Your task to perform on an android device: open app "Facebook" (install if not already installed) Image 0: 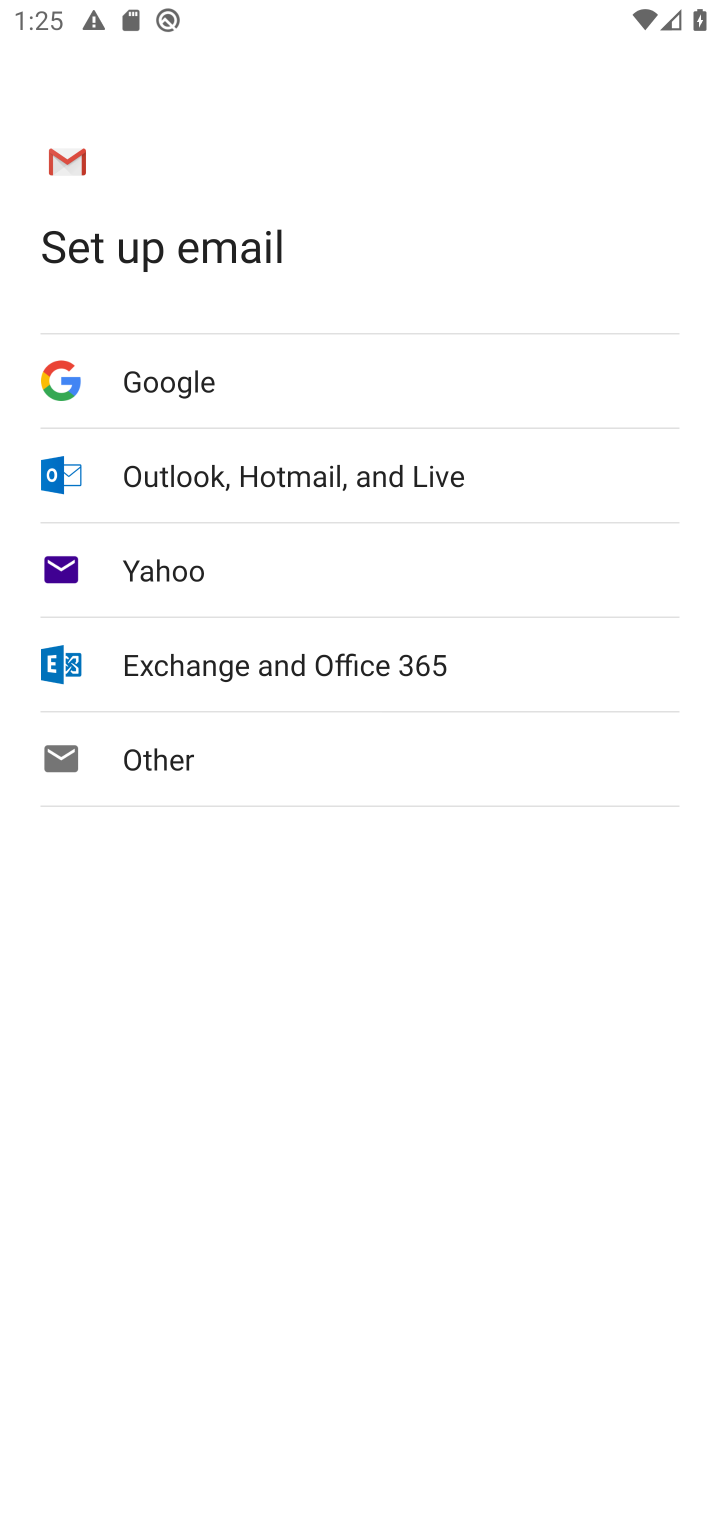
Step 0: press back button
Your task to perform on an android device: open app "Facebook" (install if not already installed) Image 1: 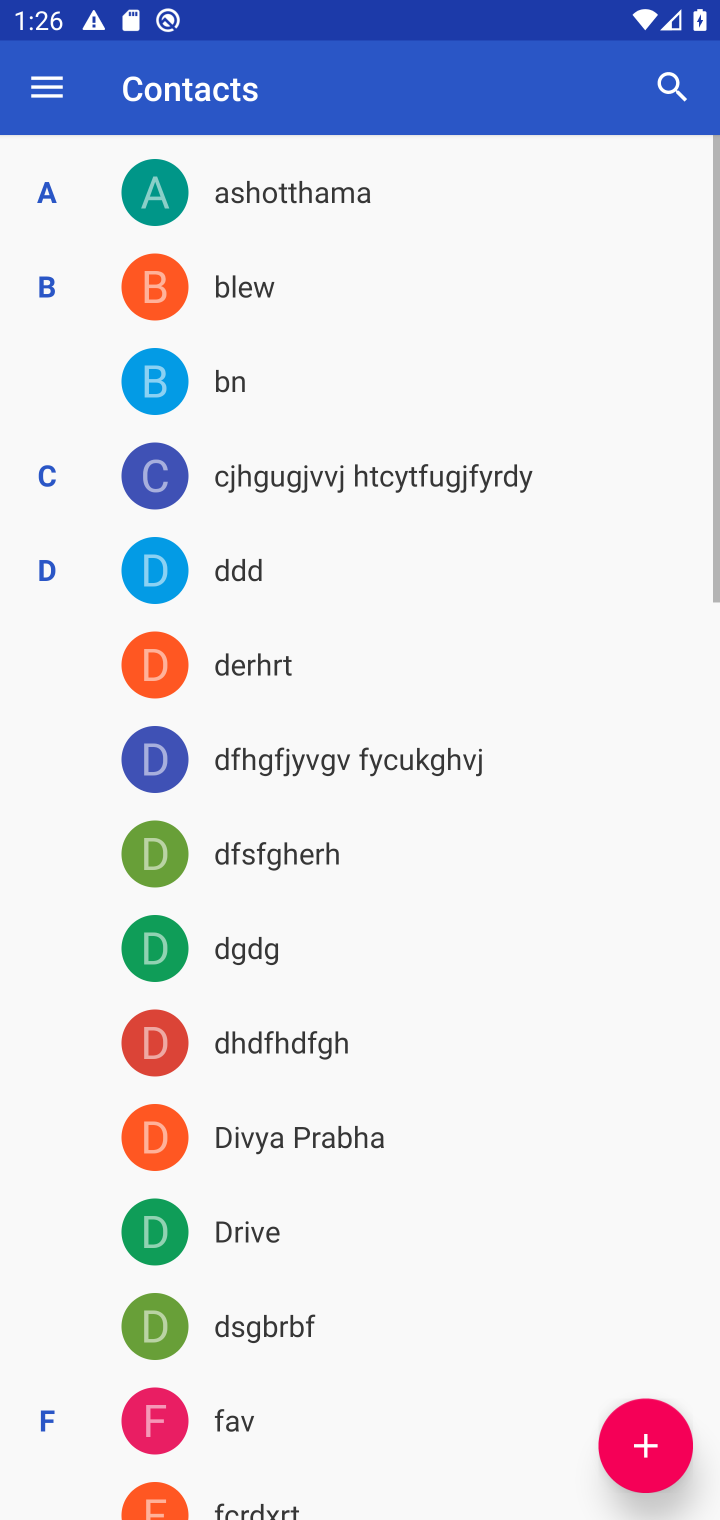
Step 1: press back button
Your task to perform on an android device: open app "Facebook" (install if not already installed) Image 2: 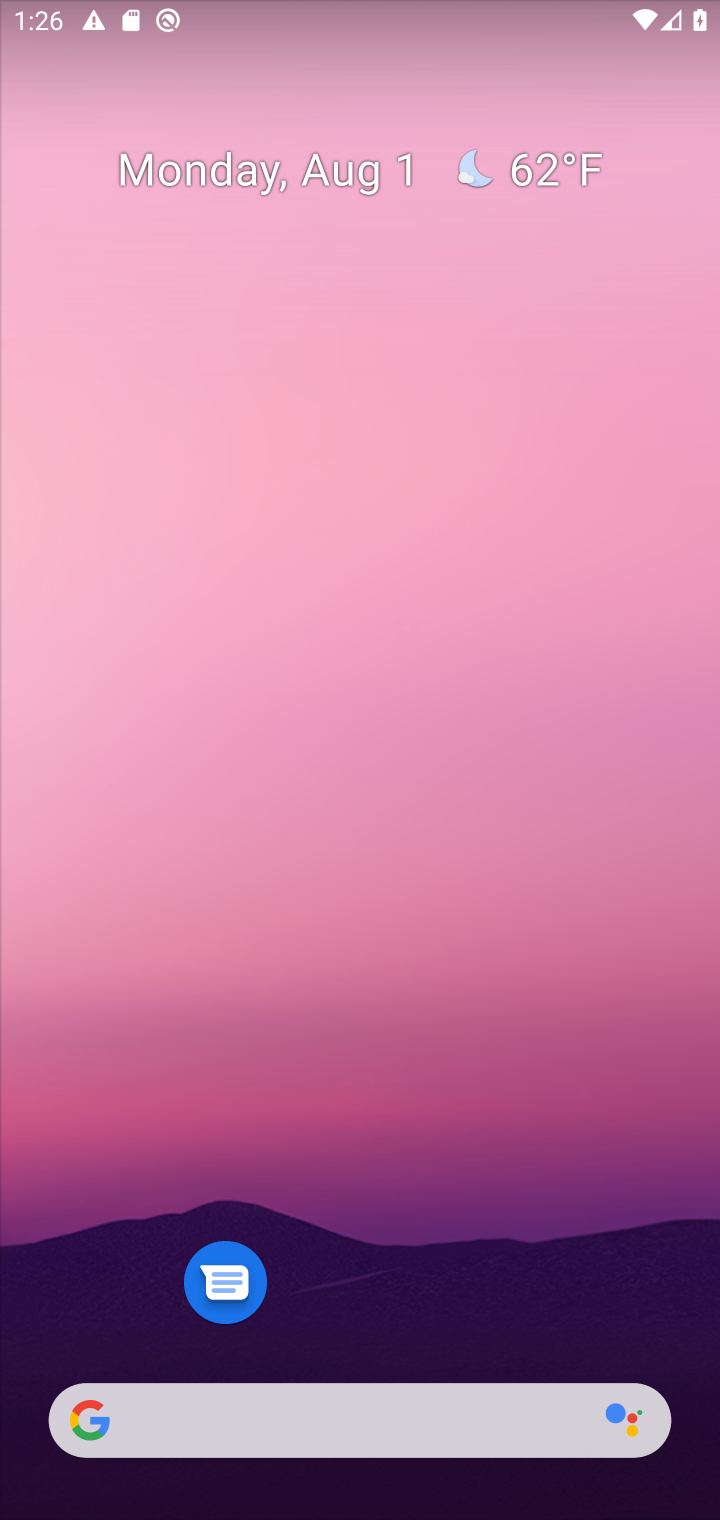
Step 2: drag from (356, 1195) to (31, 1512)
Your task to perform on an android device: open app "Facebook" (install if not already installed) Image 3: 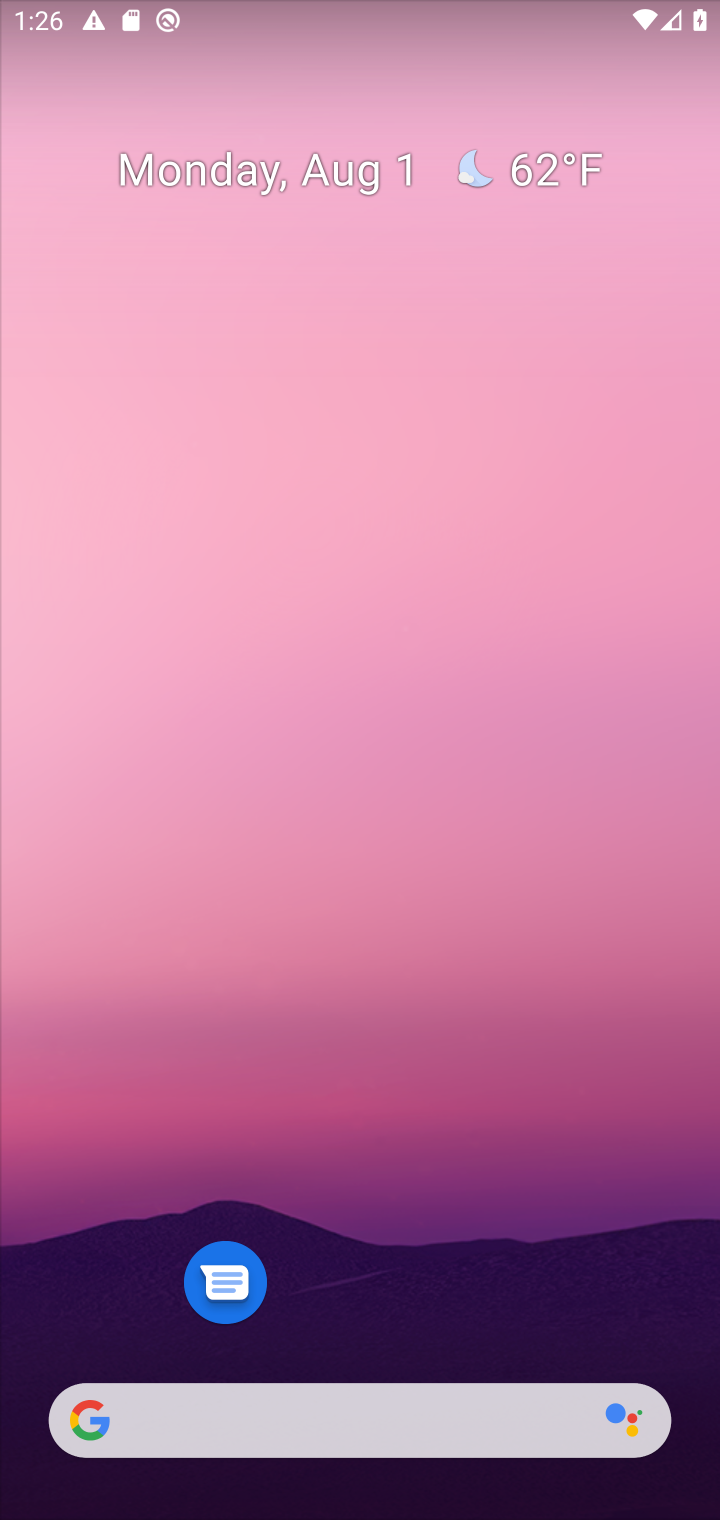
Step 3: drag from (362, 1297) to (409, 313)
Your task to perform on an android device: open app "Facebook" (install if not already installed) Image 4: 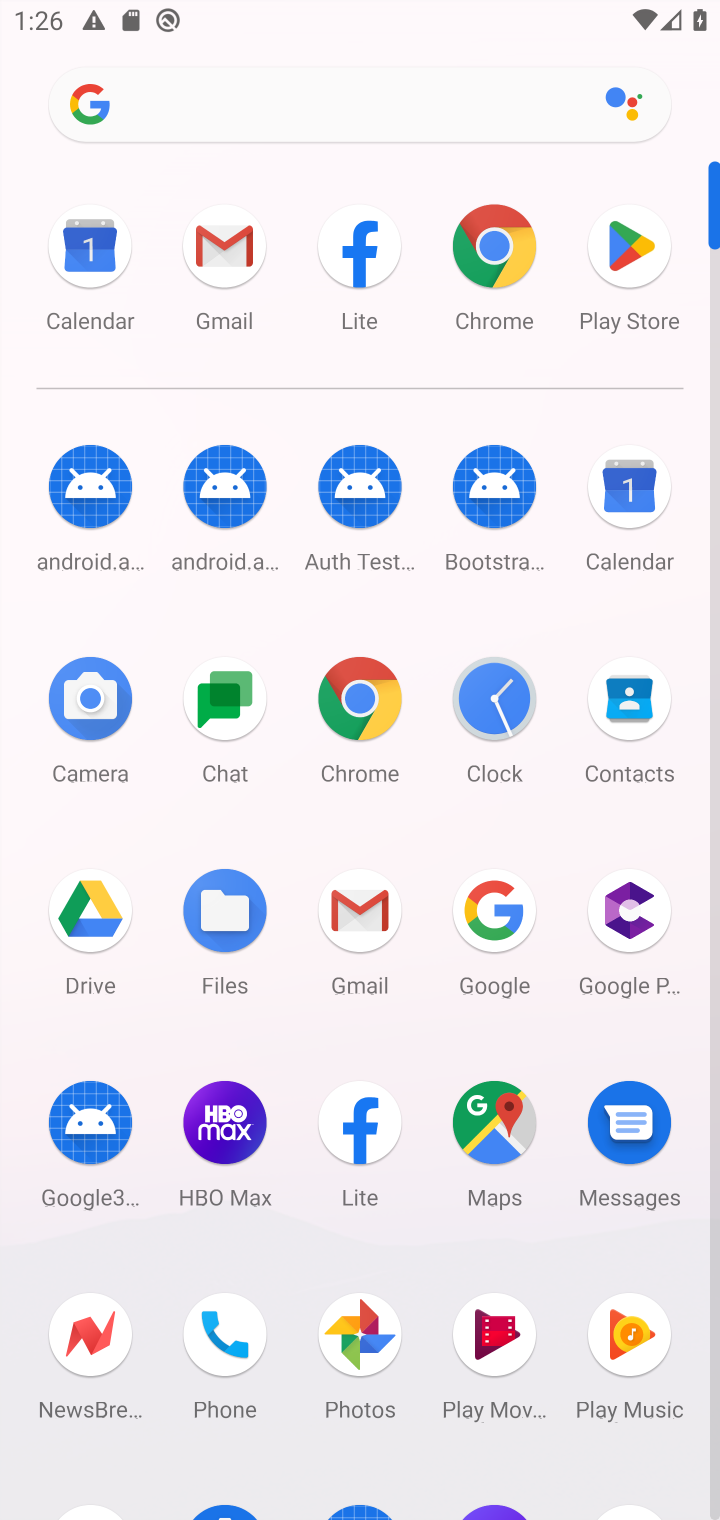
Step 4: drag from (415, 1441) to (451, 527)
Your task to perform on an android device: open app "Facebook" (install if not already installed) Image 5: 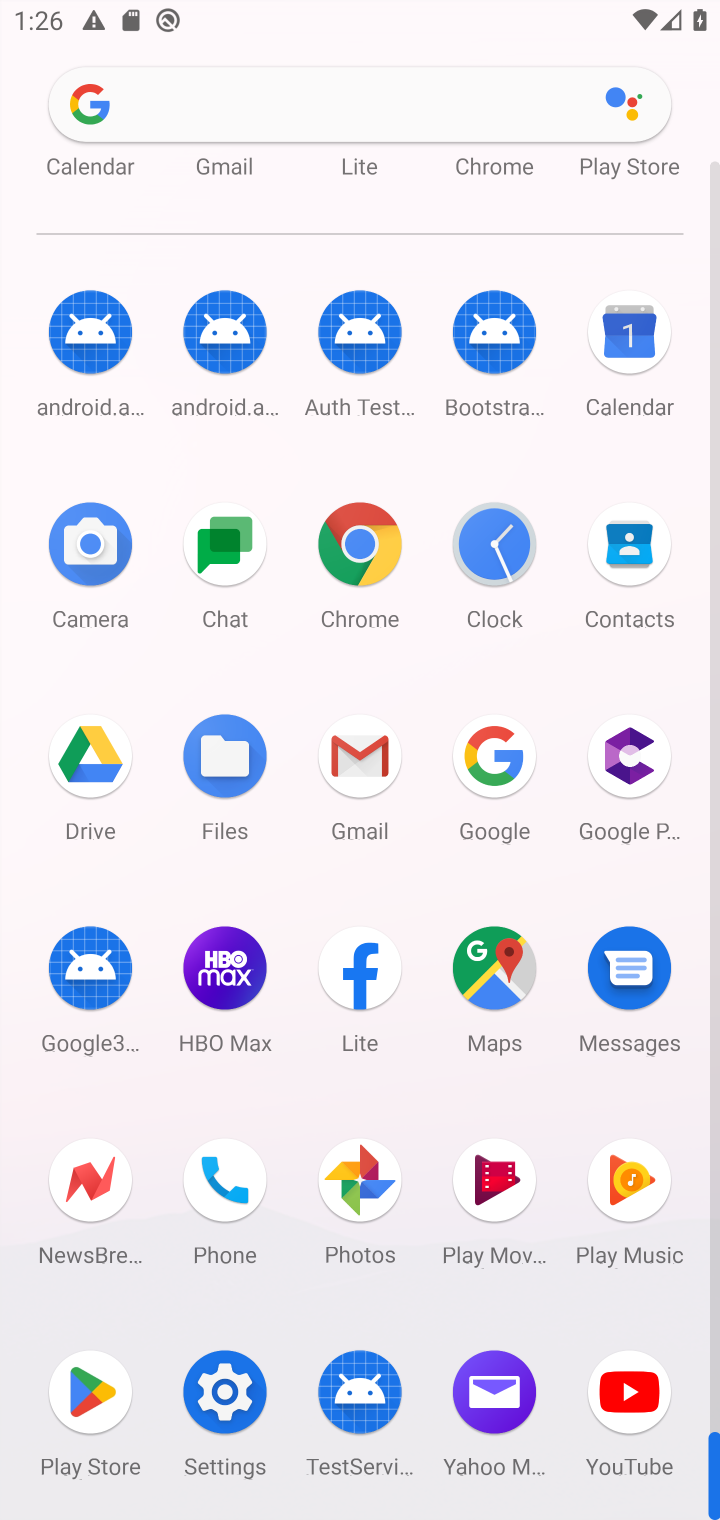
Step 5: click (92, 1415)
Your task to perform on an android device: open app "Facebook" (install if not already installed) Image 6: 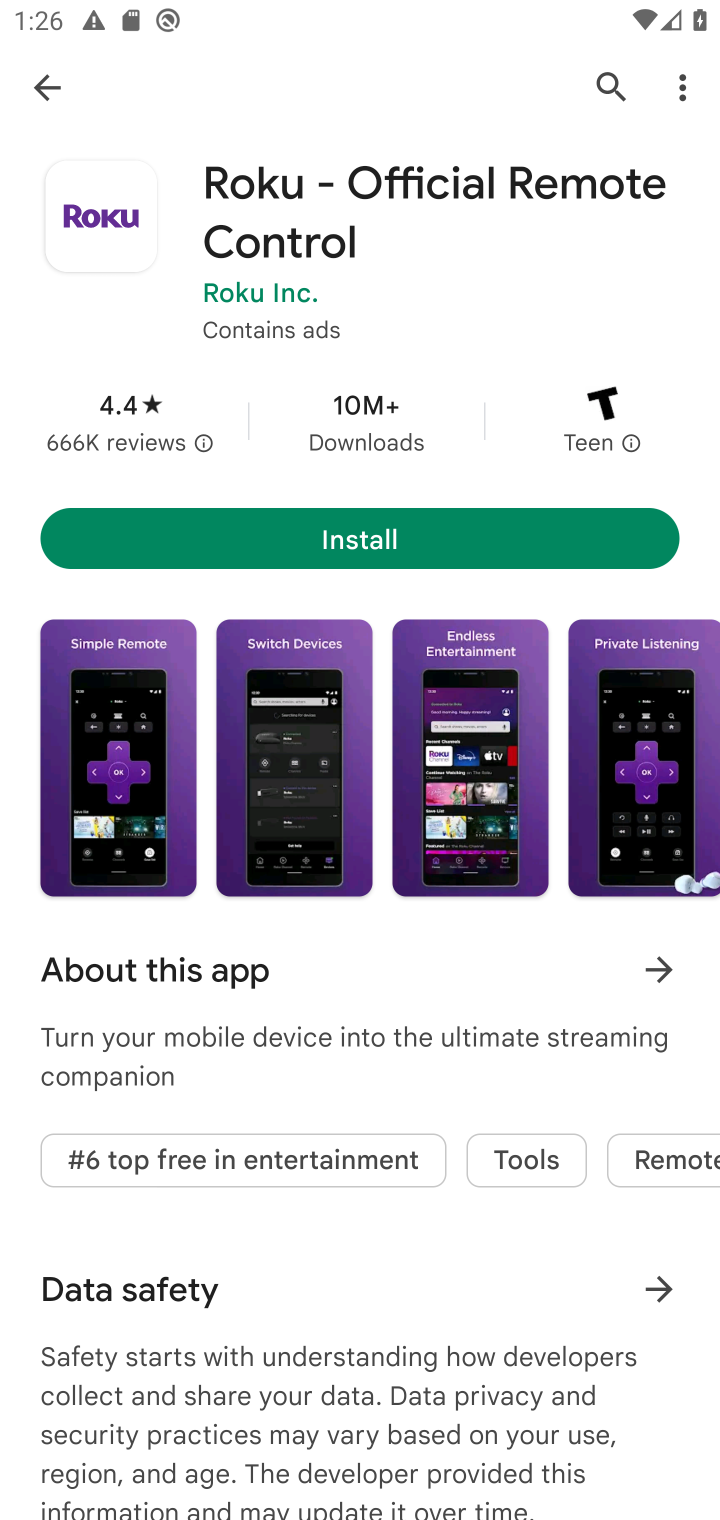
Step 6: click (92, 95)
Your task to perform on an android device: open app "Facebook" (install if not already installed) Image 7: 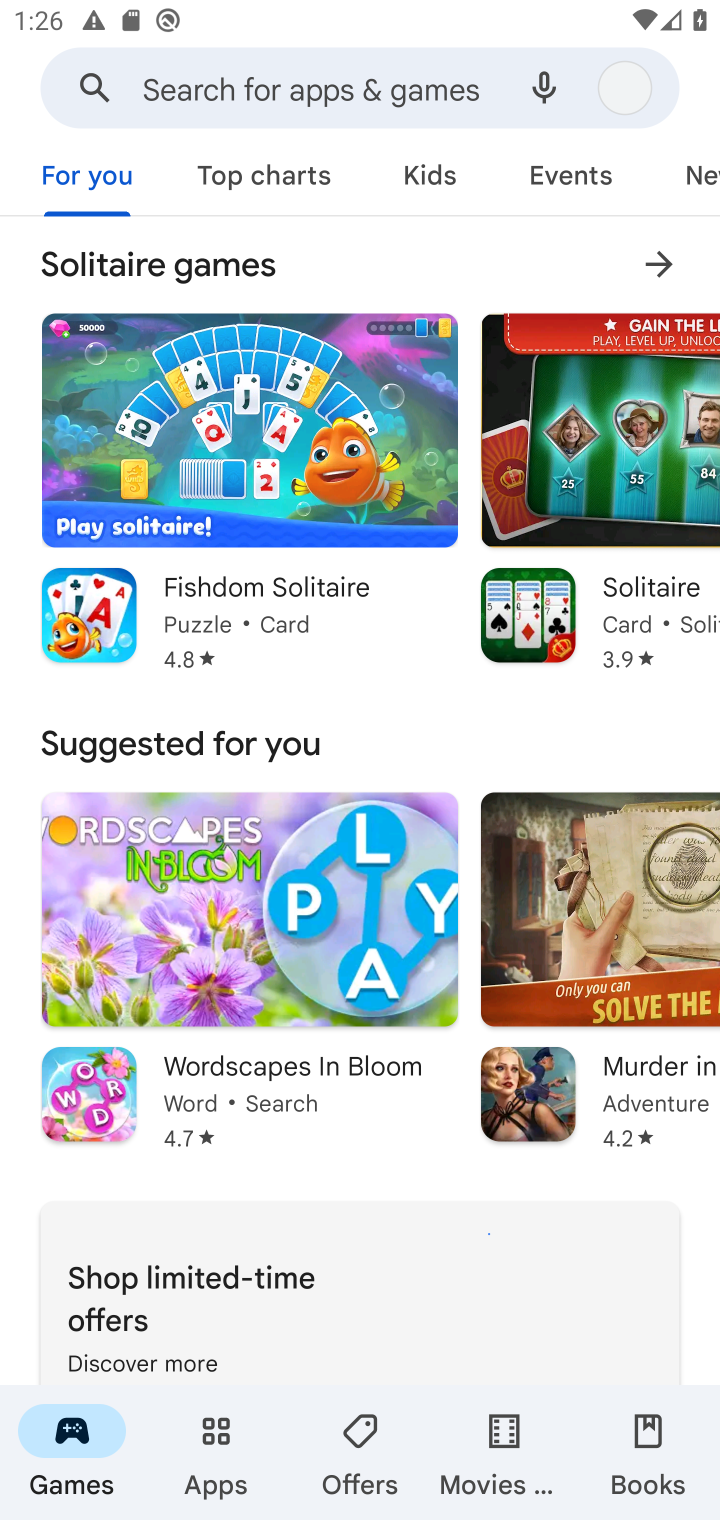
Step 7: click (204, 99)
Your task to perform on an android device: open app "Facebook" (install if not already installed) Image 8: 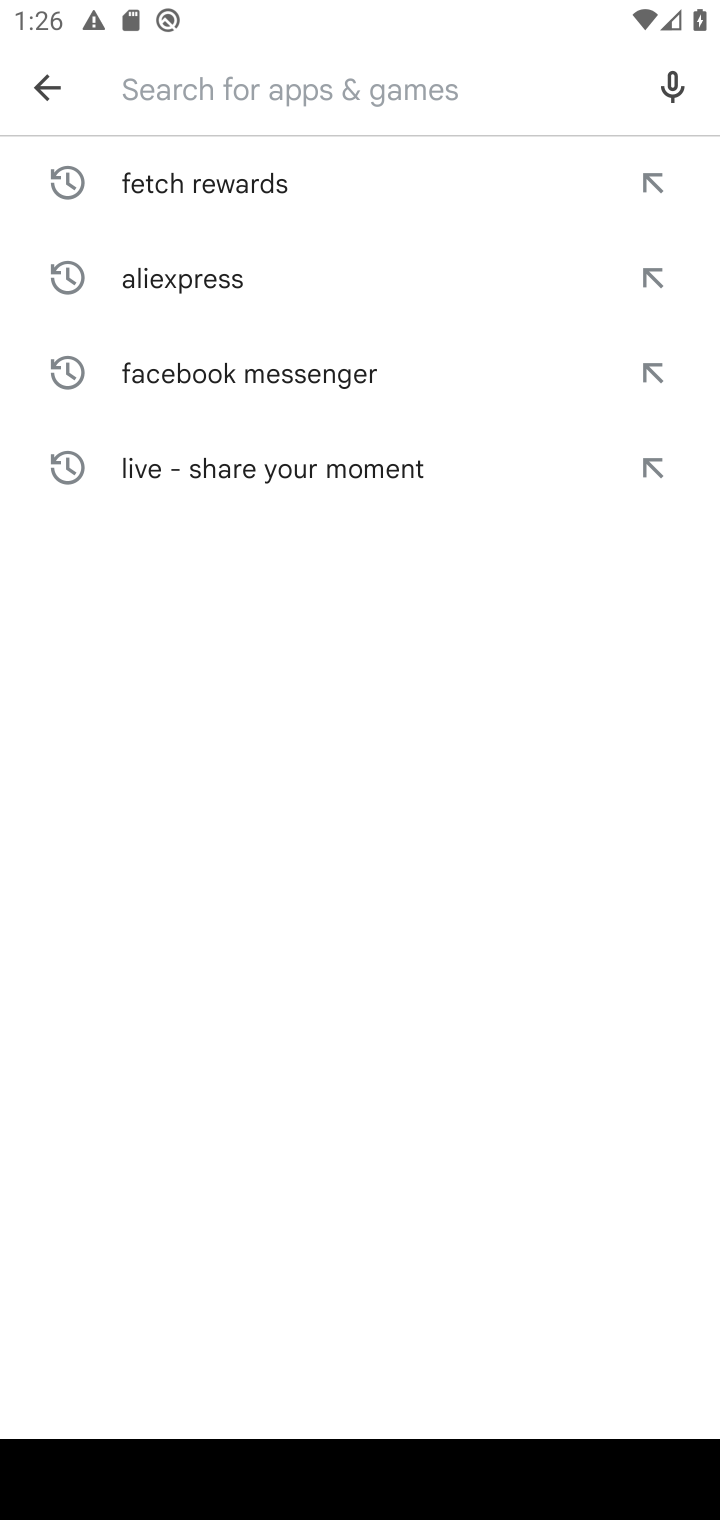
Step 8: type "Facebook"
Your task to perform on an android device: open app "Facebook" (install if not already installed) Image 9: 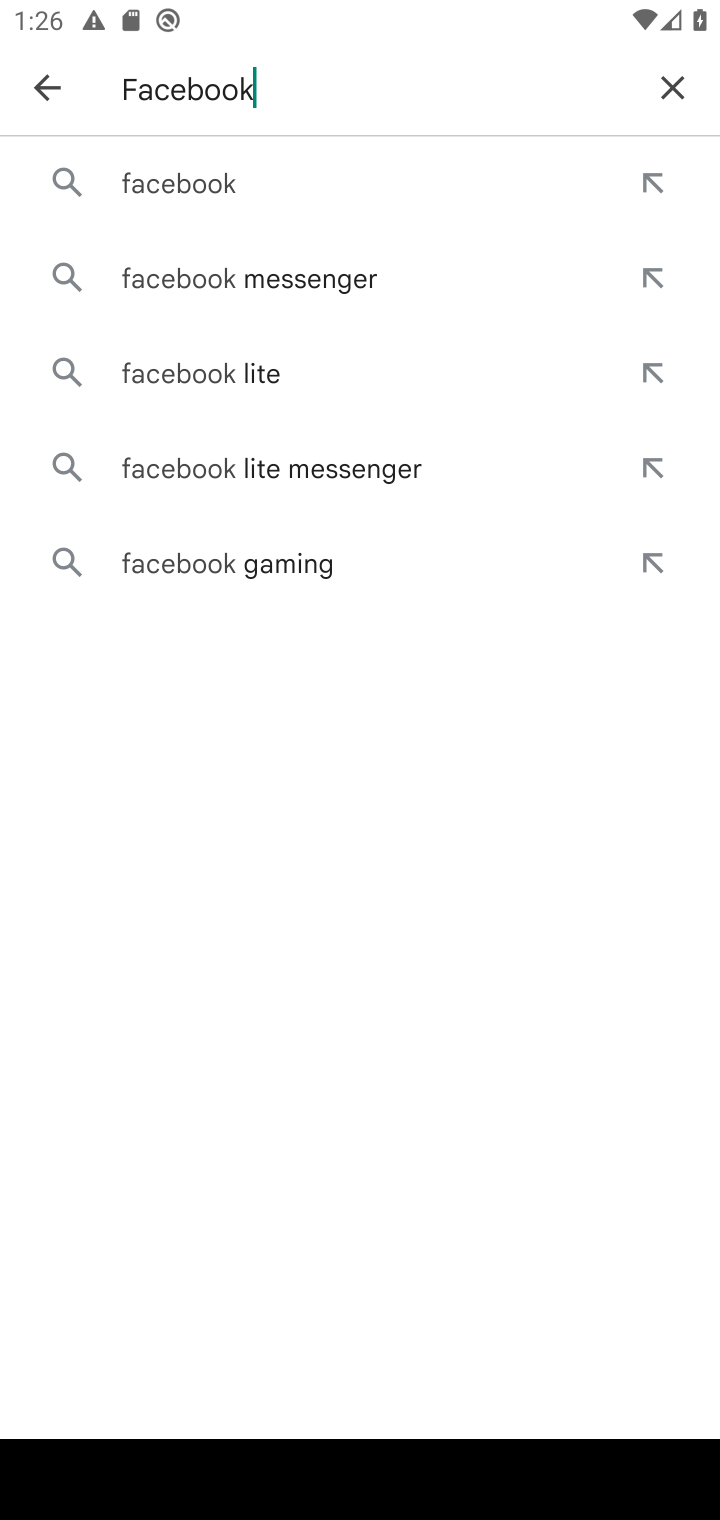
Step 9: click (153, 169)
Your task to perform on an android device: open app "Facebook" (install if not already installed) Image 10: 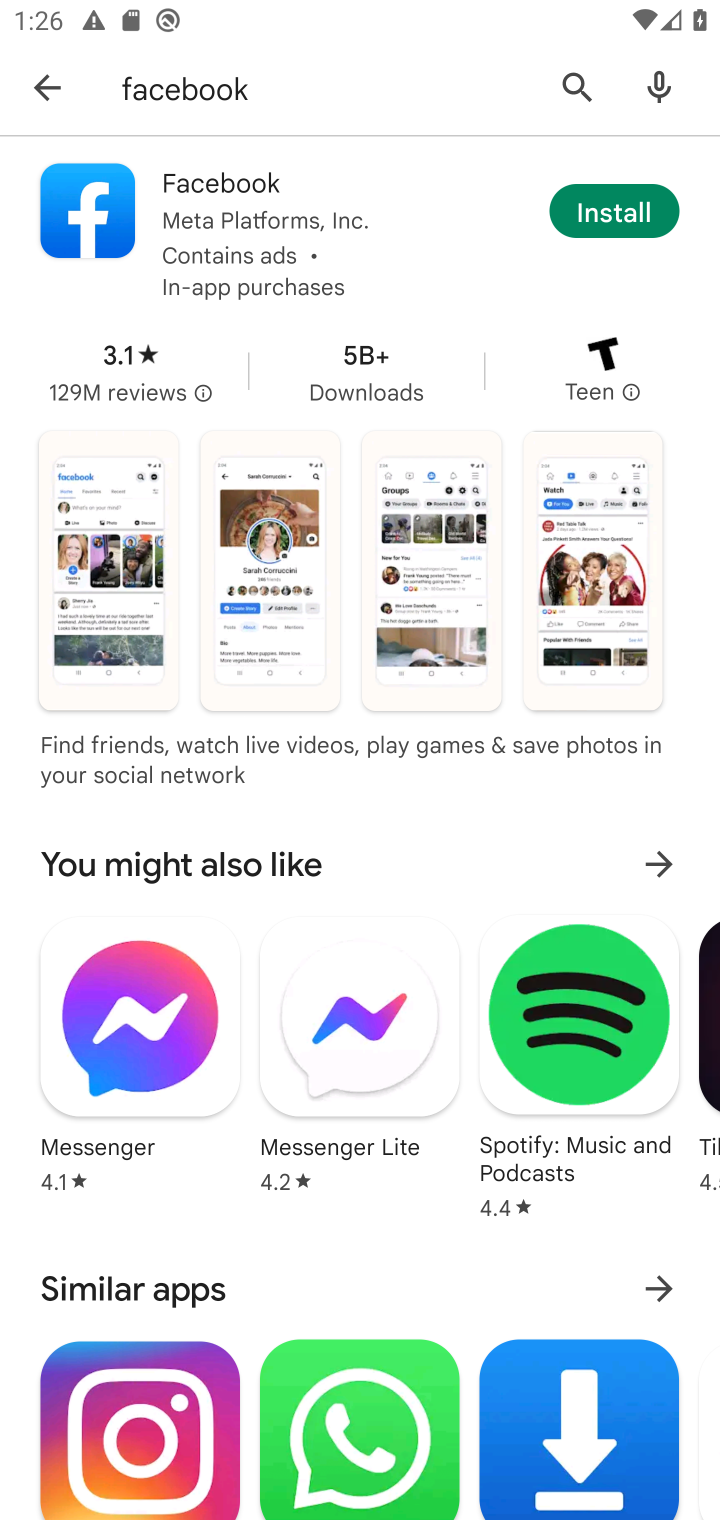
Step 10: click (173, 257)
Your task to perform on an android device: open app "Facebook" (install if not already installed) Image 11: 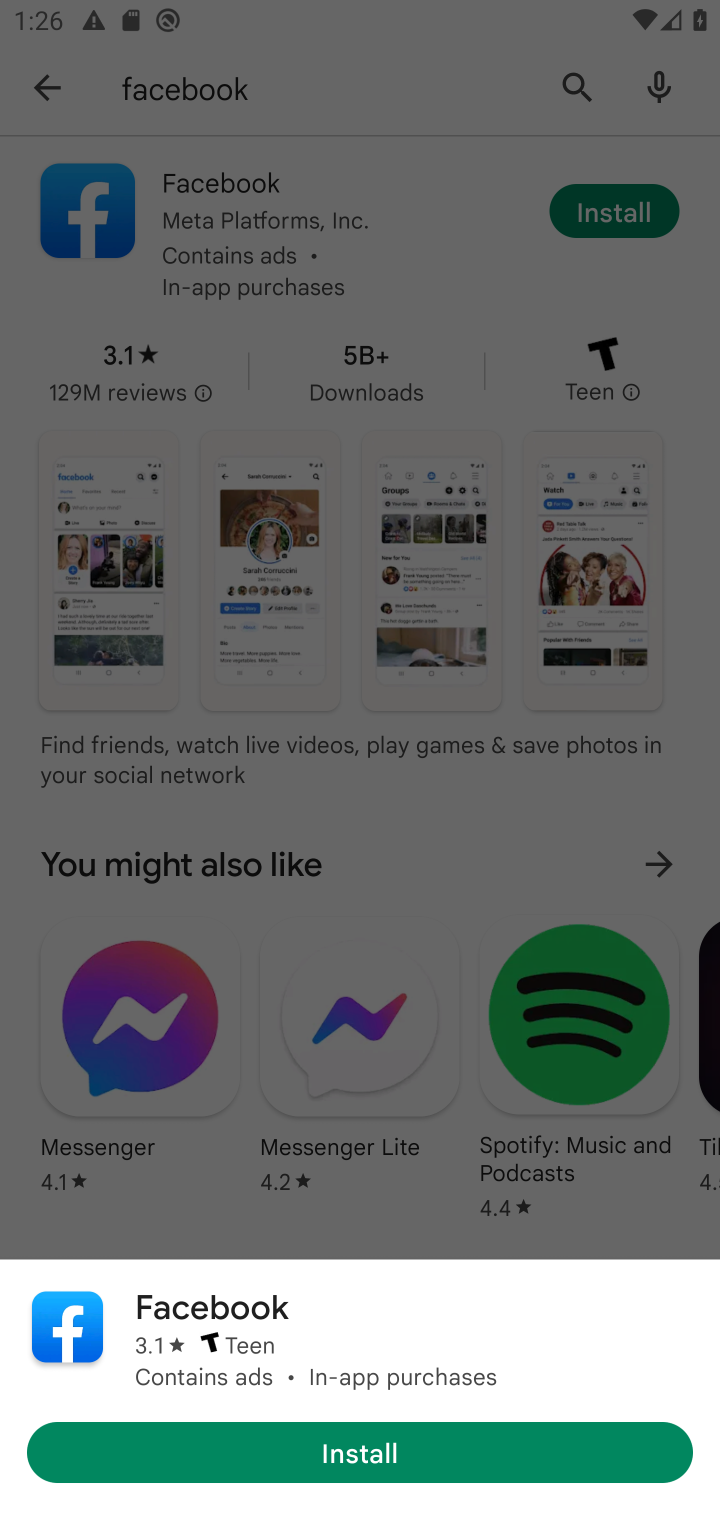
Step 11: click (386, 1439)
Your task to perform on an android device: open app "Facebook" (install if not already installed) Image 12: 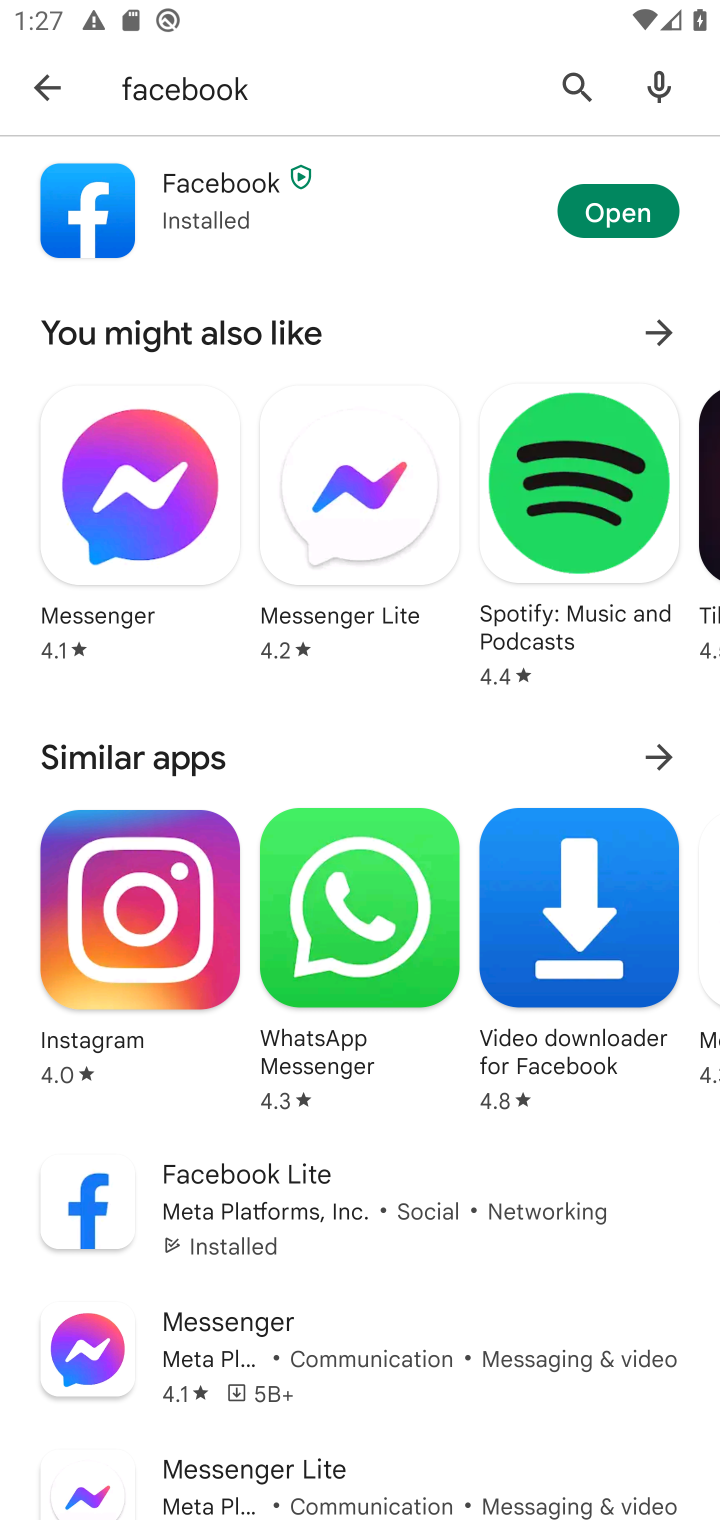
Step 12: click (605, 193)
Your task to perform on an android device: open app "Facebook" (install if not already installed) Image 13: 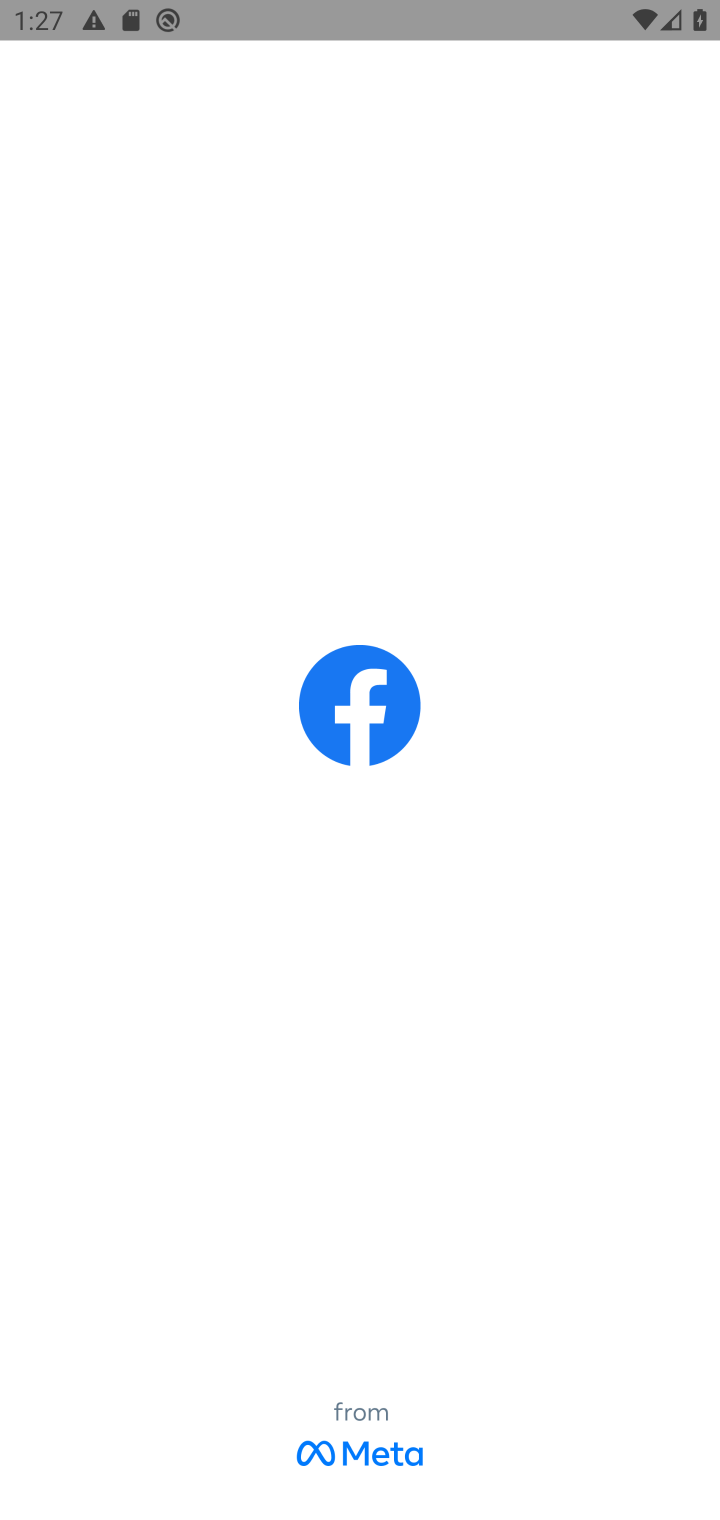
Step 13: task complete